Your task to perform on an android device: Open the calendar app, open the side menu, and click the "Day" option Image 0: 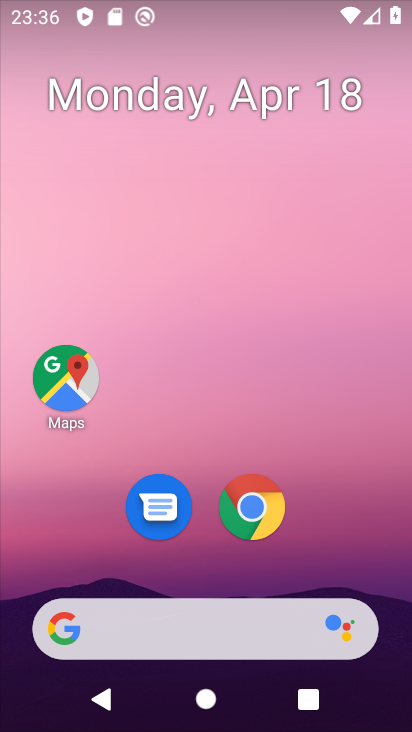
Step 0: drag from (352, 508) to (391, 100)
Your task to perform on an android device: Open the calendar app, open the side menu, and click the "Day" option Image 1: 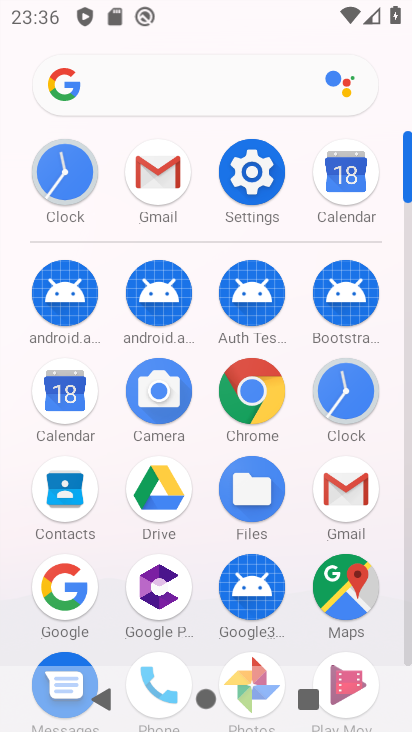
Step 1: click (70, 398)
Your task to perform on an android device: Open the calendar app, open the side menu, and click the "Day" option Image 2: 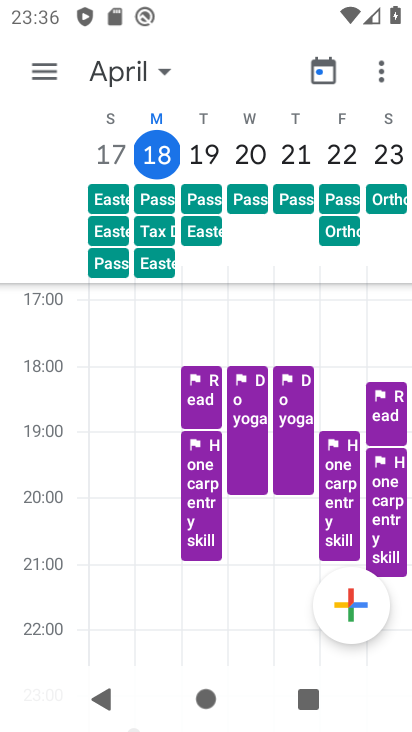
Step 2: click (47, 66)
Your task to perform on an android device: Open the calendar app, open the side menu, and click the "Day" option Image 3: 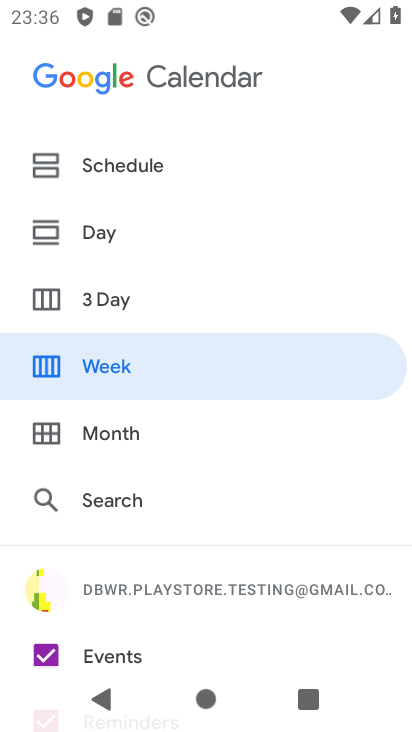
Step 3: click (83, 231)
Your task to perform on an android device: Open the calendar app, open the side menu, and click the "Day" option Image 4: 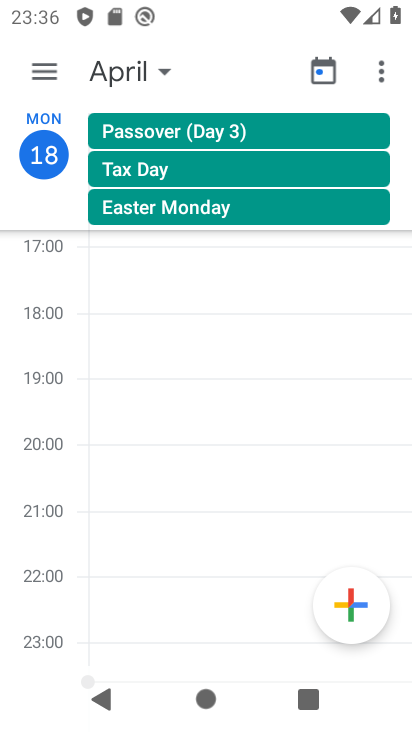
Step 4: task complete